Your task to perform on an android device: Open Yahoo.com Image 0: 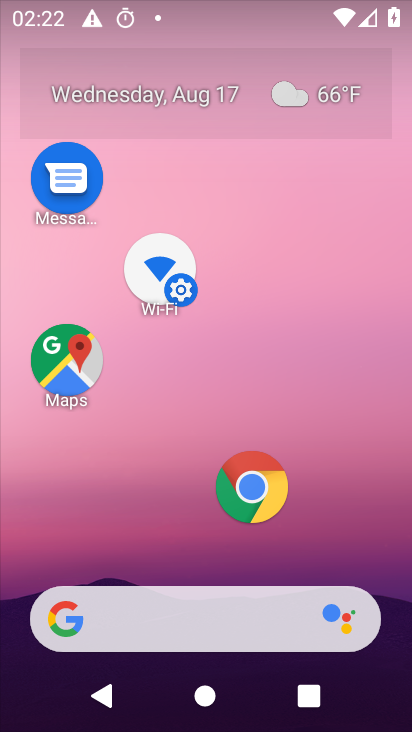
Step 0: click (56, 614)
Your task to perform on an android device: Open Yahoo.com Image 1: 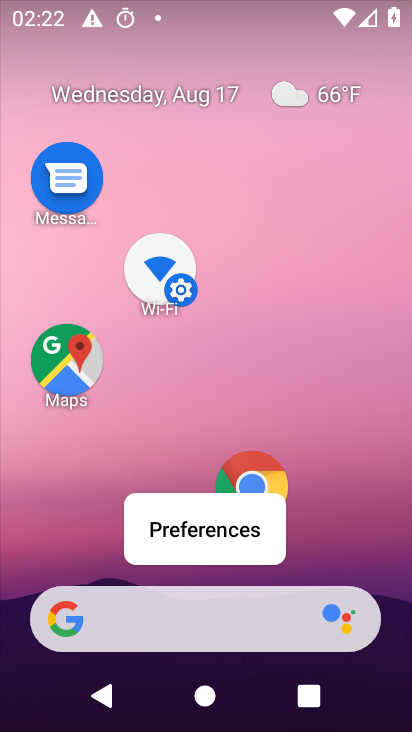
Step 1: click (49, 626)
Your task to perform on an android device: Open Yahoo.com Image 2: 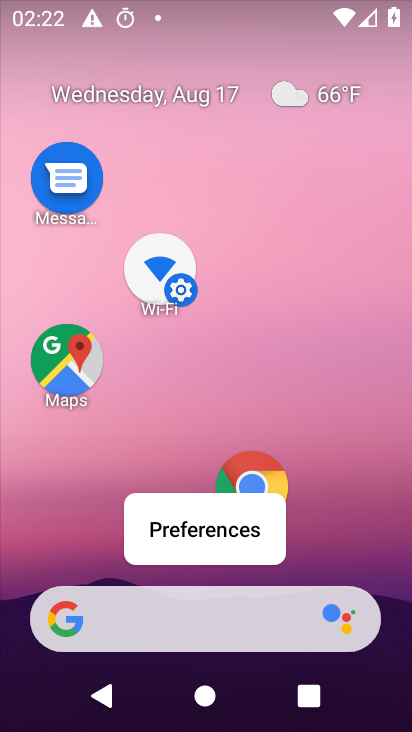
Step 2: click (49, 626)
Your task to perform on an android device: Open Yahoo.com Image 3: 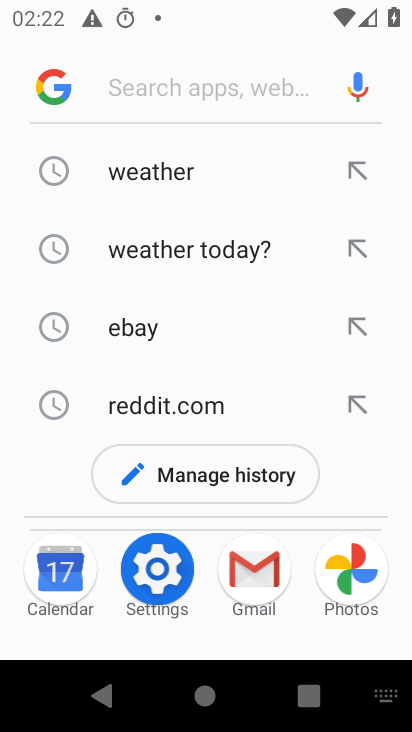
Step 3: type "Yahoo.com"
Your task to perform on an android device: Open Yahoo.com Image 4: 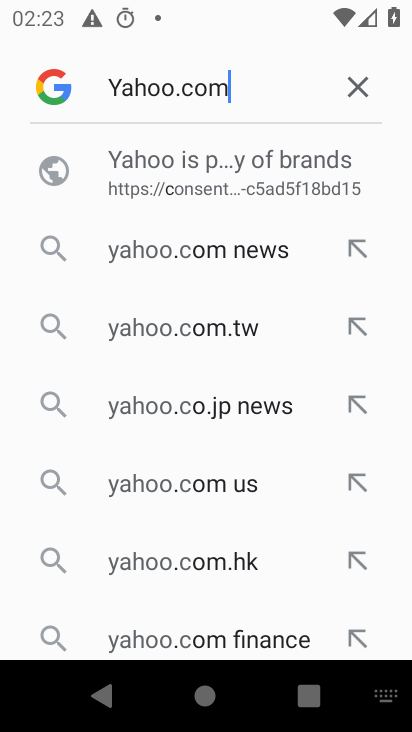
Step 4: press enter
Your task to perform on an android device: Open Yahoo.com Image 5: 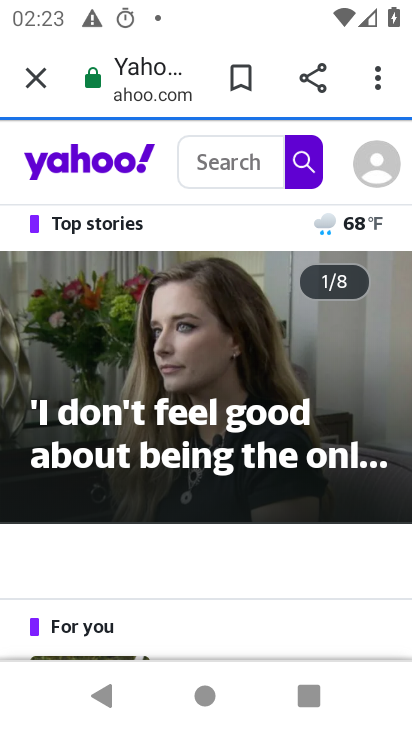
Step 5: task complete